Your task to perform on an android device: Go to Android settings Image 0: 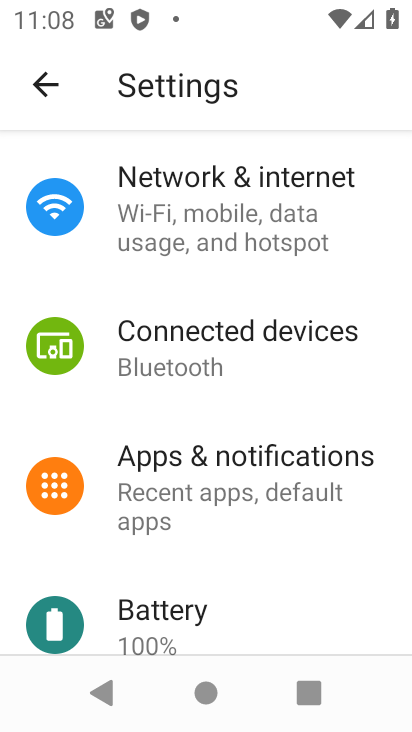
Step 0: drag from (253, 582) to (272, 255)
Your task to perform on an android device: Go to Android settings Image 1: 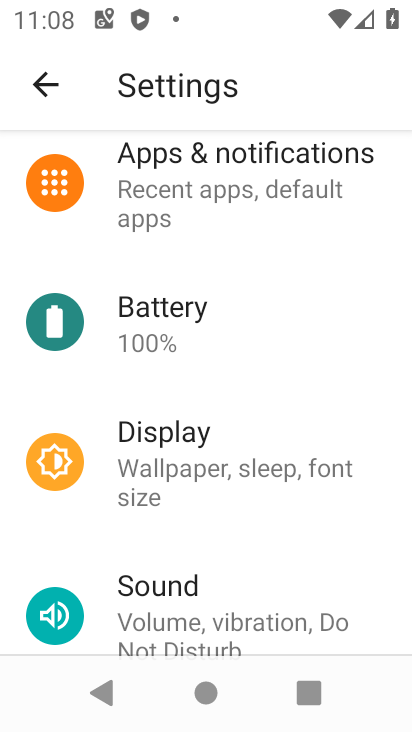
Step 1: task complete